Your task to perform on an android device: toggle translation in the chrome app Image 0: 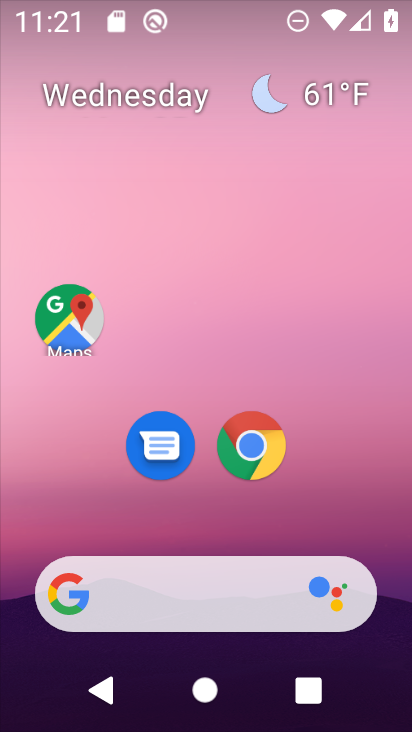
Step 0: drag from (396, 532) to (343, 206)
Your task to perform on an android device: toggle translation in the chrome app Image 1: 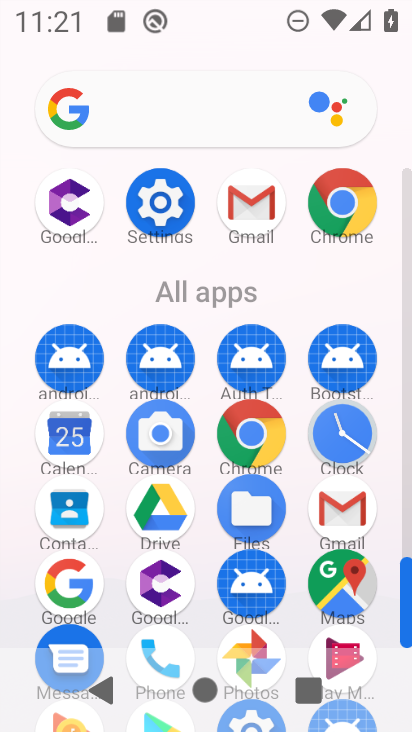
Step 1: click (264, 418)
Your task to perform on an android device: toggle translation in the chrome app Image 2: 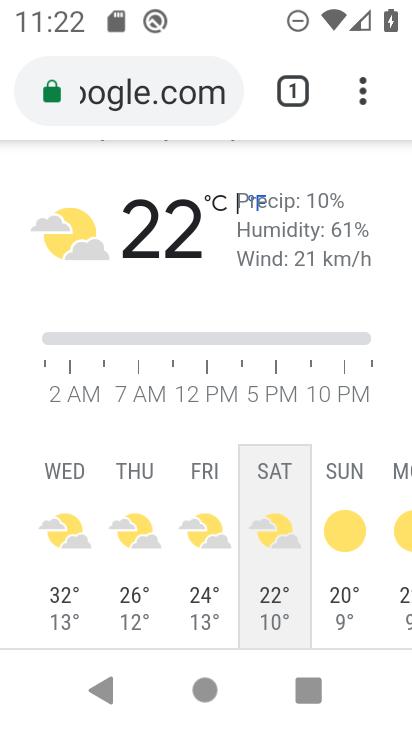
Step 2: drag from (363, 101) to (192, 486)
Your task to perform on an android device: toggle translation in the chrome app Image 3: 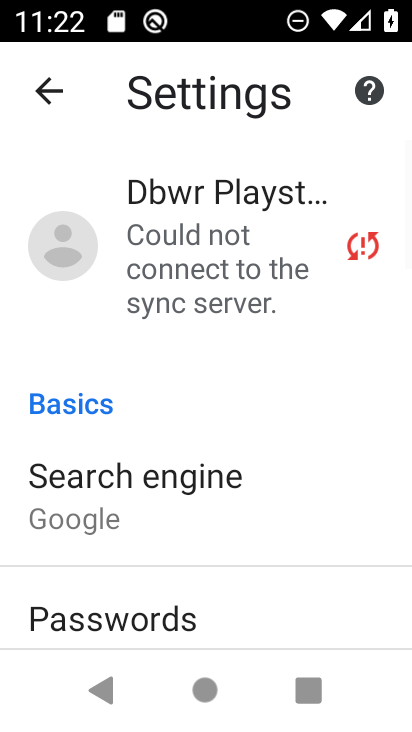
Step 3: drag from (283, 617) to (286, 237)
Your task to perform on an android device: toggle translation in the chrome app Image 4: 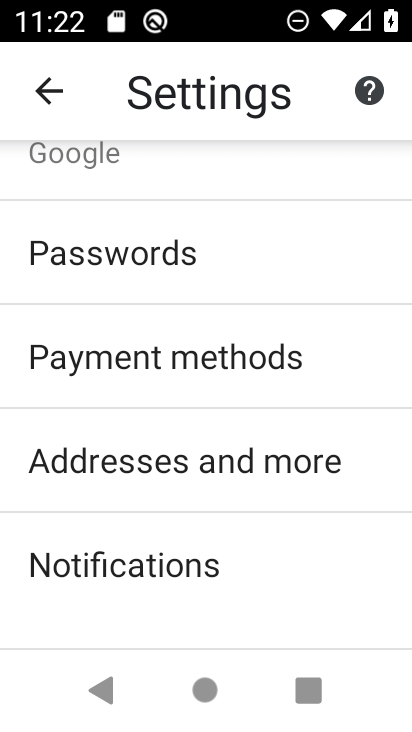
Step 4: drag from (249, 583) to (268, 334)
Your task to perform on an android device: toggle translation in the chrome app Image 5: 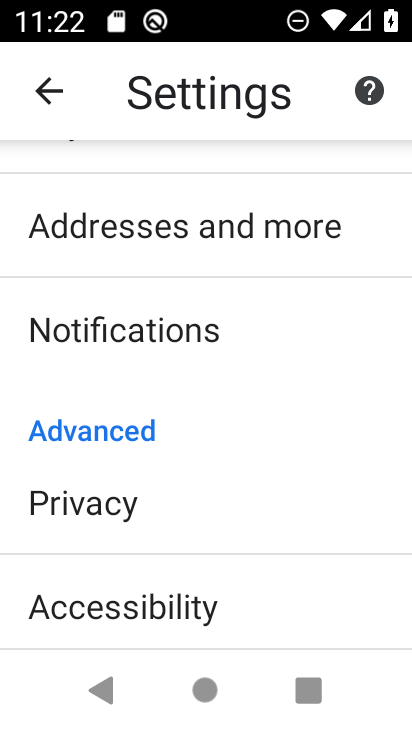
Step 5: drag from (255, 601) to (314, 280)
Your task to perform on an android device: toggle translation in the chrome app Image 6: 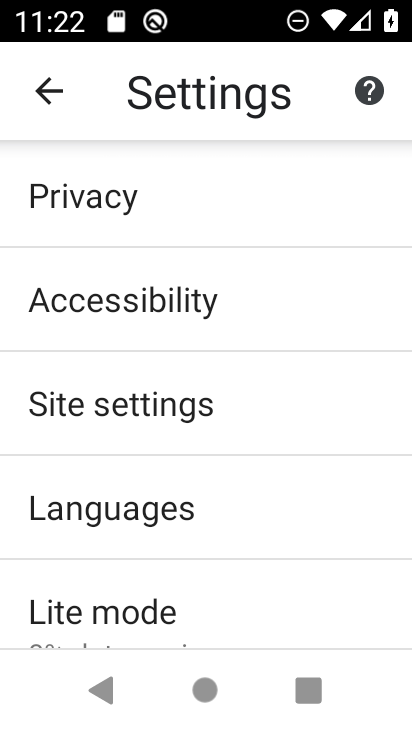
Step 6: drag from (291, 579) to (287, 239)
Your task to perform on an android device: toggle translation in the chrome app Image 7: 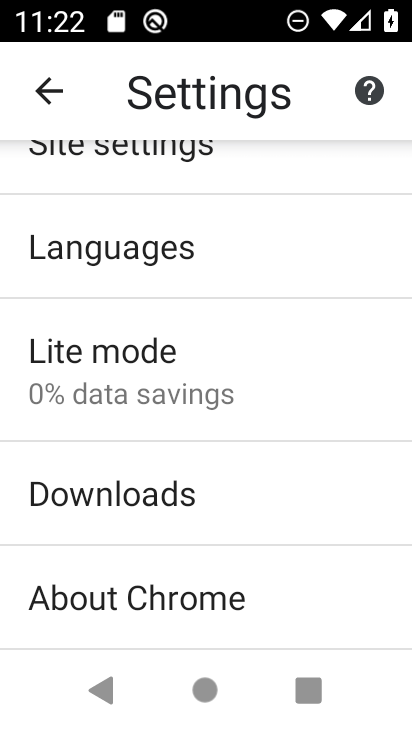
Step 7: click (245, 255)
Your task to perform on an android device: toggle translation in the chrome app Image 8: 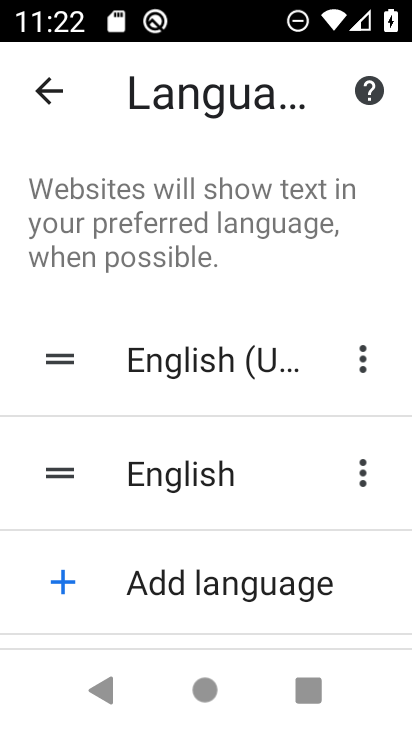
Step 8: drag from (204, 579) to (266, 307)
Your task to perform on an android device: toggle translation in the chrome app Image 9: 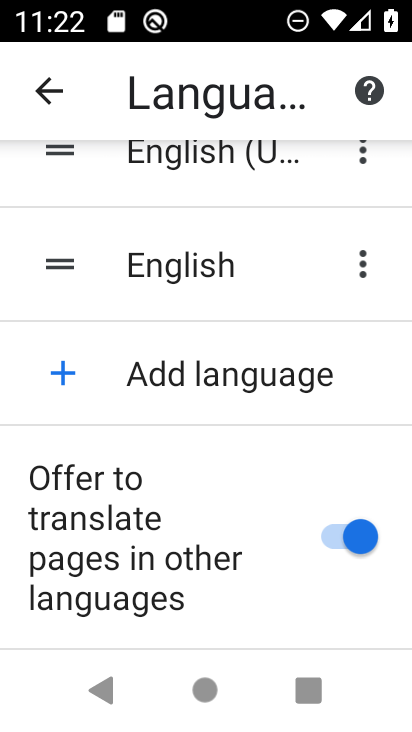
Step 9: click (337, 546)
Your task to perform on an android device: toggle translation in the chrome app Image 10: 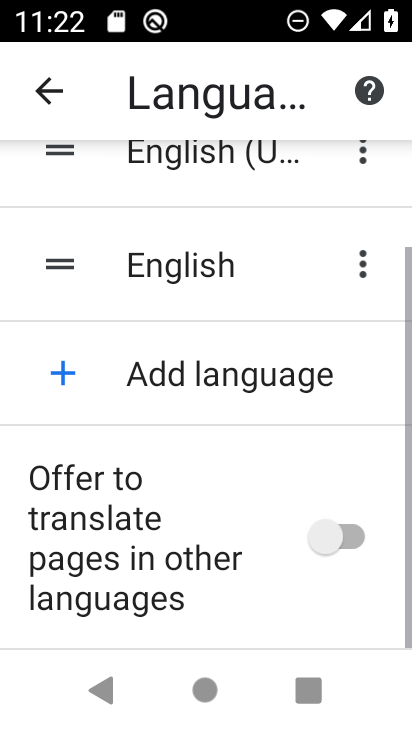
Step 10: task complete